Your task to perform on an android device: see sites visited before in the chrome app Image 0: 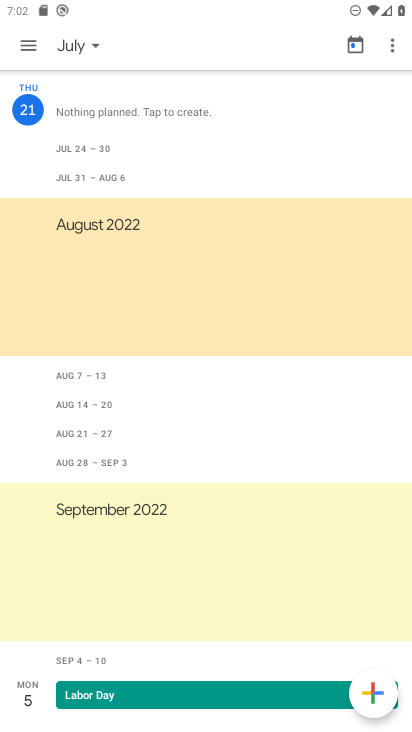
Step 0: press home button
Your task to perform on an android device: see sites visited before in the chrome app Image 1: 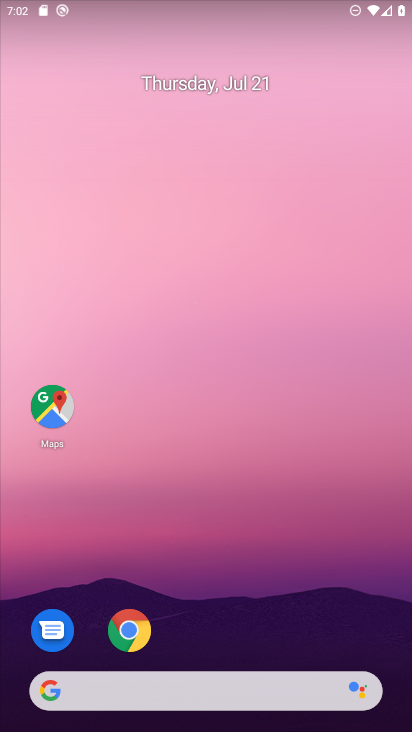
Step 1: click (127, 630)
Your task to perform on an android device: see sites visited before in the chrome app Image 2: 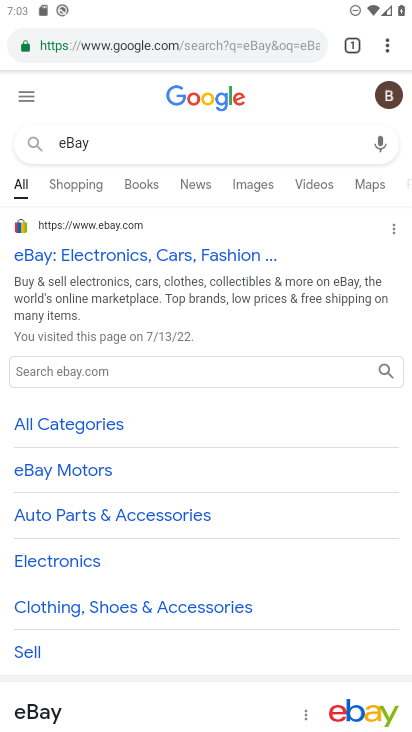
Step 2: click (388, 45)
Your task to perform on an android device: see sites visited before in the chrome app Image 3: 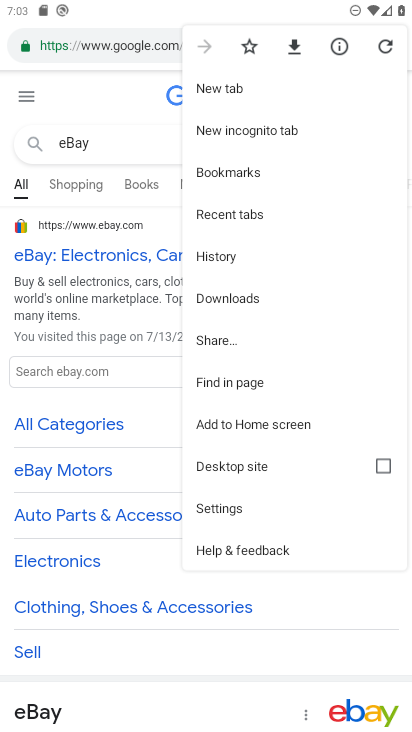
Step 3: click (226, 259)
Your task to perform on an android device: see sites visited before in the chrome app Image 4: 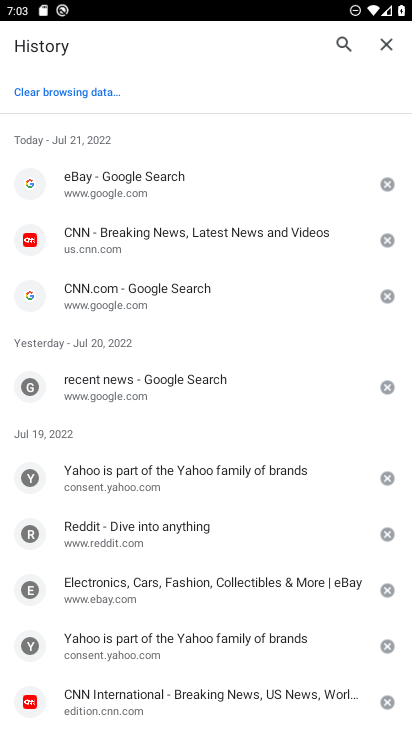
Step 4: task complete